Your task to perform on an android device: check battery use Image 0: 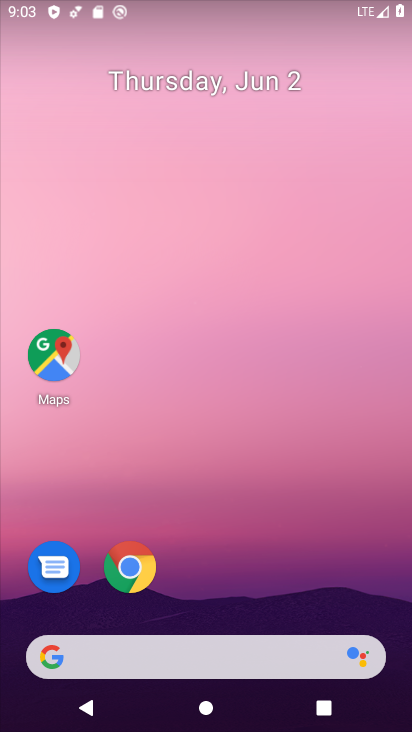
Step 0: press home button
Your task to perform on an android device: check battery use Image 1: 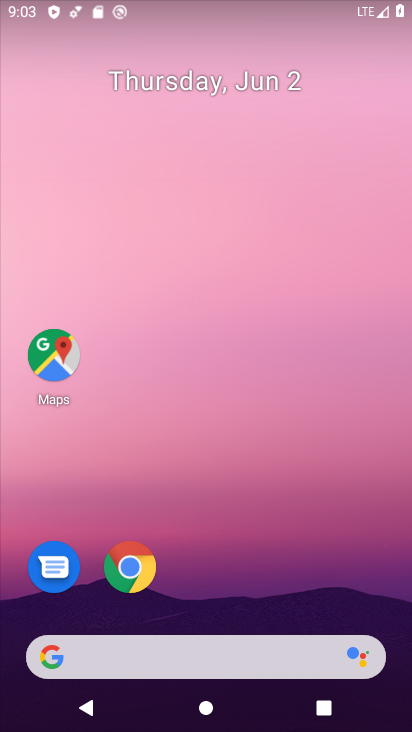
Step 1: drag from (331, 463) to (300, 137)
Your task to perform on an android device: check battery use Image 2: 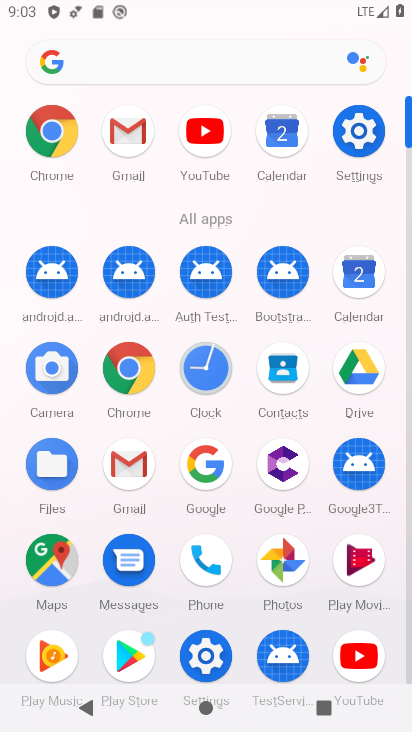
Step 2: click (202, 669)
Your task to perform on an android device: check battery use Image 3: 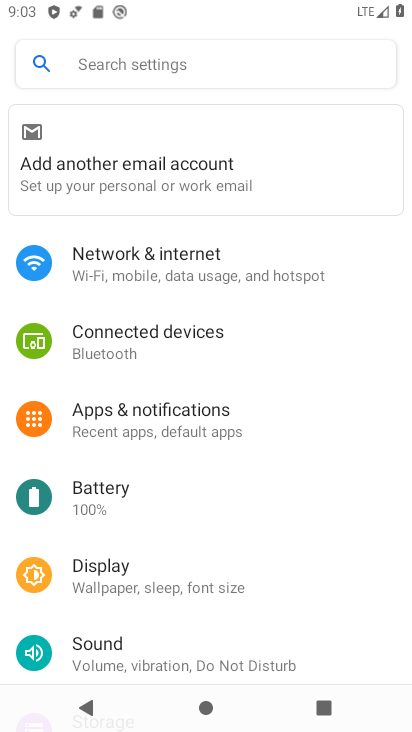
Step 3: click (170, 507)
Your task to perform on an android device: check battery use Image 4: 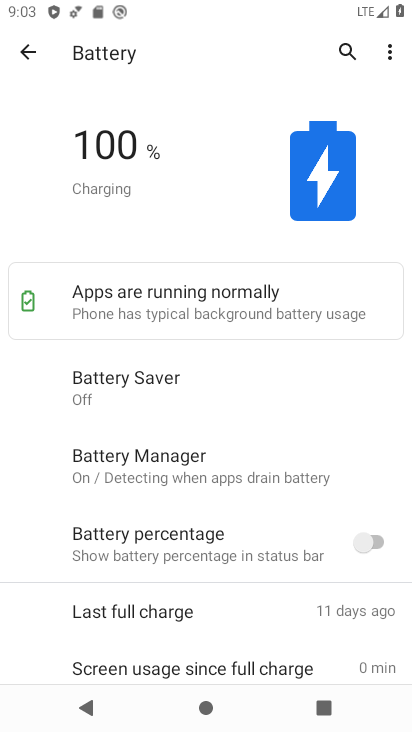
Step 4: task complete